Your task to perform on an android device: open app "Duolingo: language lessons" (install if not already installed) Image 0: 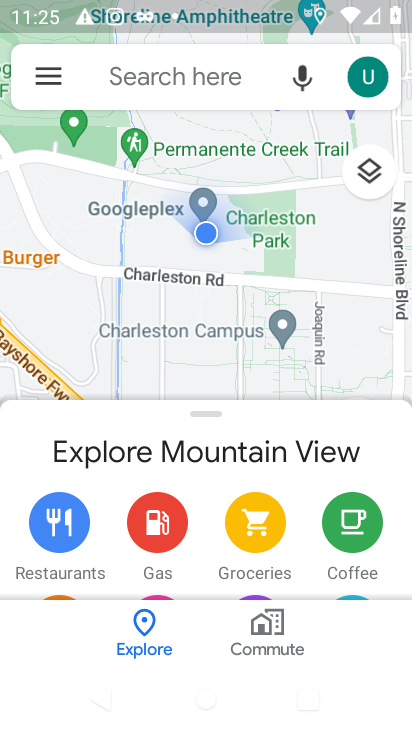
Step 0: press home button
Your task to perform on an android device: open app "Duolingo: language lessons" (install if not already installed) Image 1: 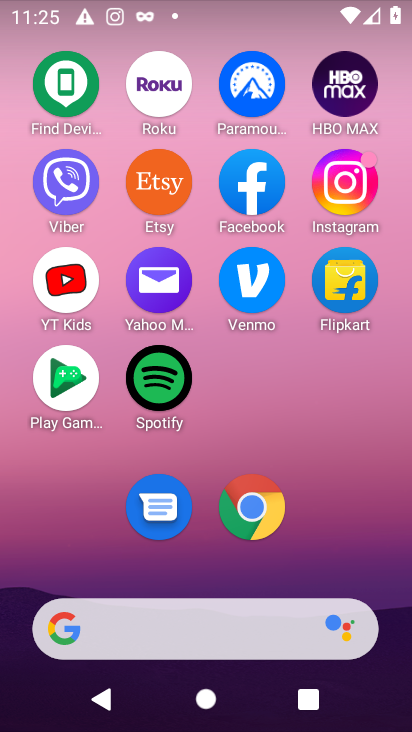
Step 1: drag from (194, 634) to (196, 138)
Your task to perform on an android device: open app "Duolingo: language lessons" (install if not already installed) Image 2: 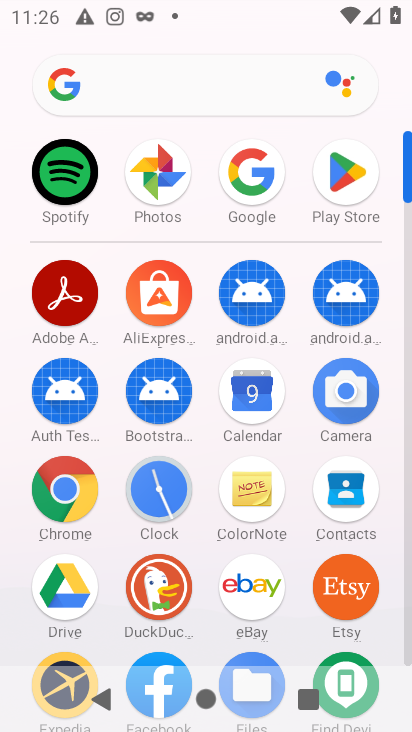
Step 2: click (346, 176)
Your task to perform on an android device: open app "Duolingo: language lessons" (install if not already installed) Image 3: 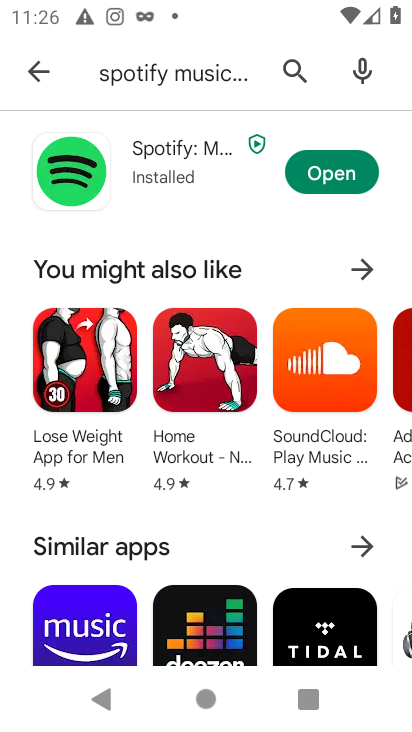
Step 3: click (293, 73)
Your task to perform on an android device: open app "Duolingo: language lessons" (install if not already installed) Image 4: 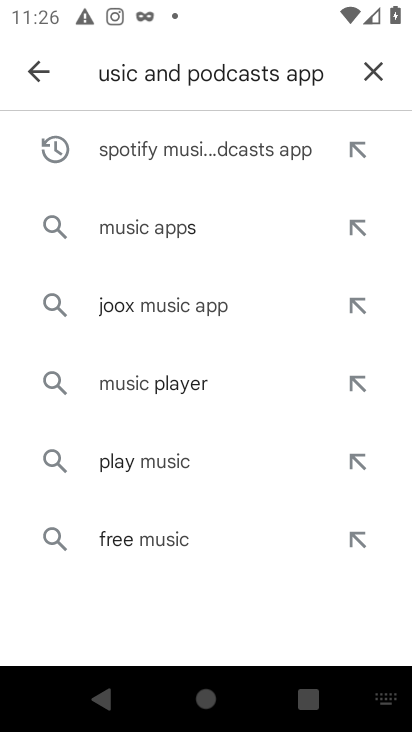
Step 4: click (374, 67)
Your task to perform on an android device: open app "Duolingo: language lessons" (install if not already installed) Image 5: 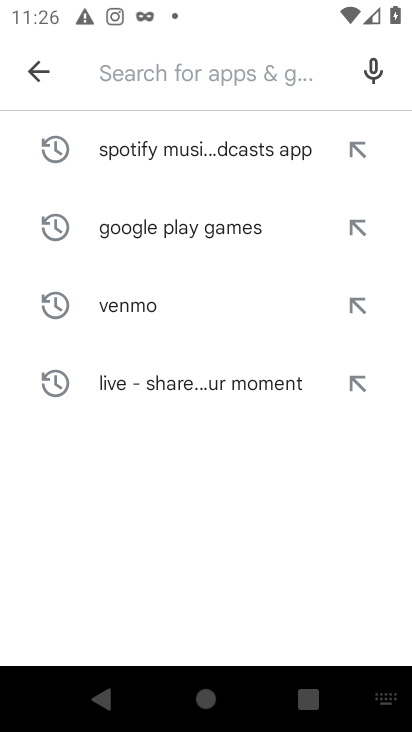
Step 5: type "Duolingo: language lessons"
Your task to perform on an android device: open app "Duolingo: language lessons" (install if not already installed) Image 6: 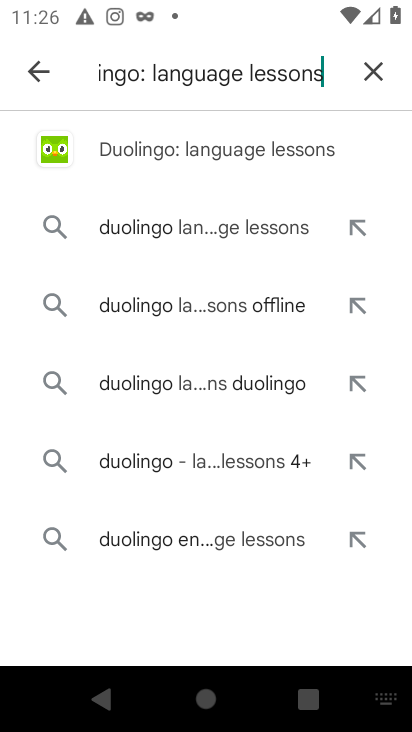
Step 6: click (249, 148)
Your task to perform on an android device: open app "Duolingo: language lessons" (install if not already installed) Image 7: 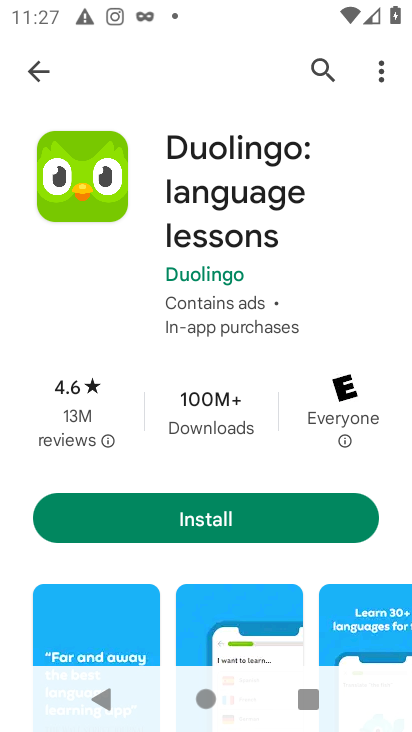
Step 7: click (240, 516)
Your task to perform on an android device: open app "Duolingo: language lessons" (install if not already installed) Image 8: 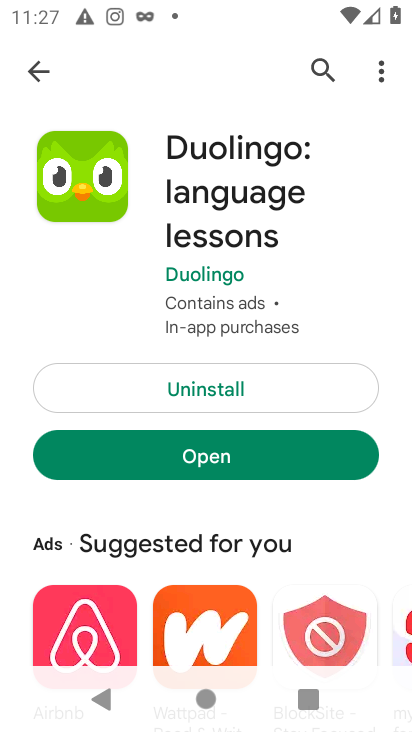
Step 8: click (222, 439)
Your task to perform on an android device: open app "Duolingo: language lessons" (install if not already installed) Image 9: 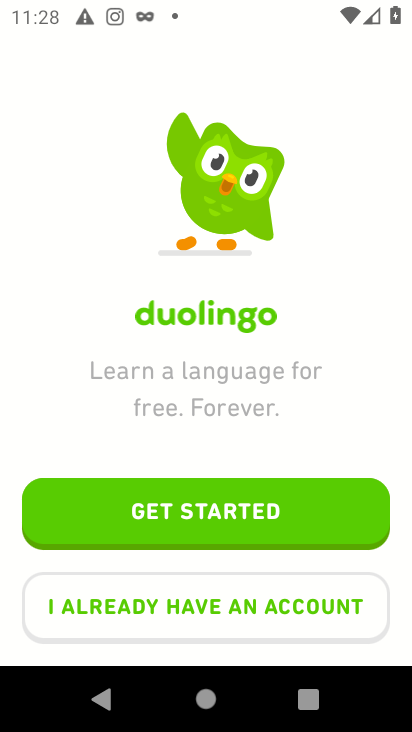
Step 9: task complete